Your task to perform on an android device: What's the weather going to be this weekend? Image 0: 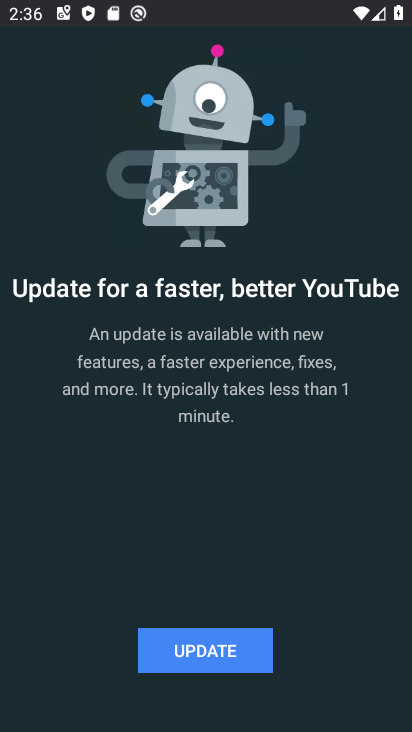
Step 0: press home button
Your task to perform on an android device: What's the weather going to be this weekend? Image 1: 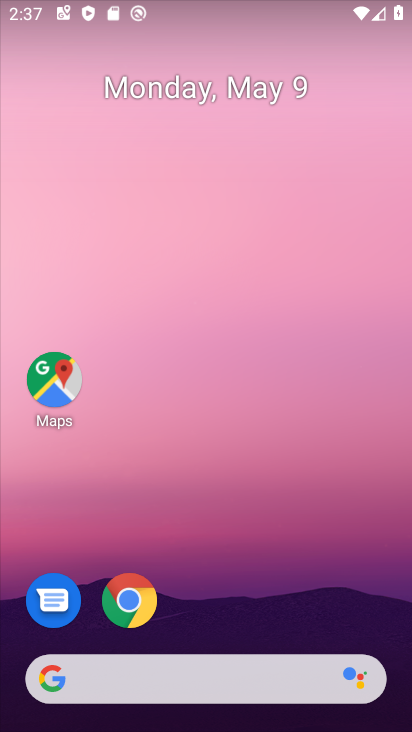
Step 1: click (150, 679)
Your task to perform on an android device: What's the weather going to be this weekend? Image 2: 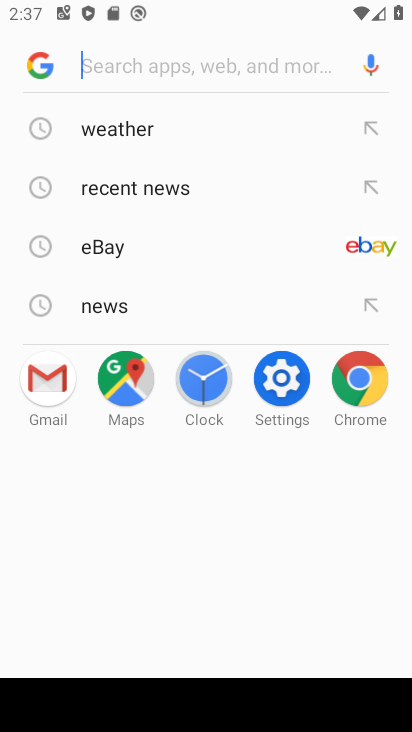
Step 2: click (119, 135)
Your task to perform on an android device: What's the weather going to be this weekend? Image 3: 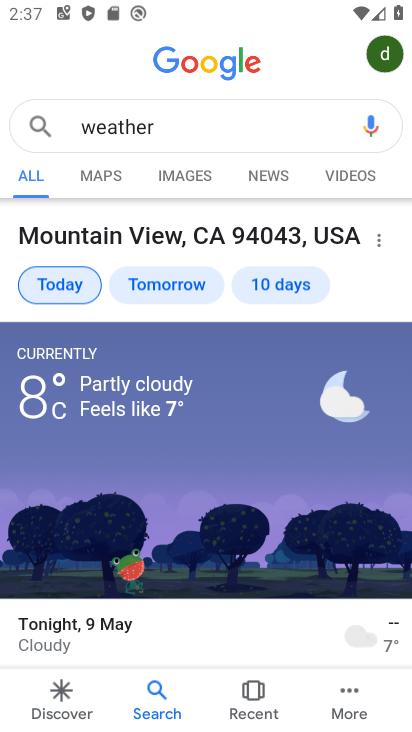
Step 3: click (266, 286)
Your task to perform on an android device: What's the weather going to be this weekend? Image 4: 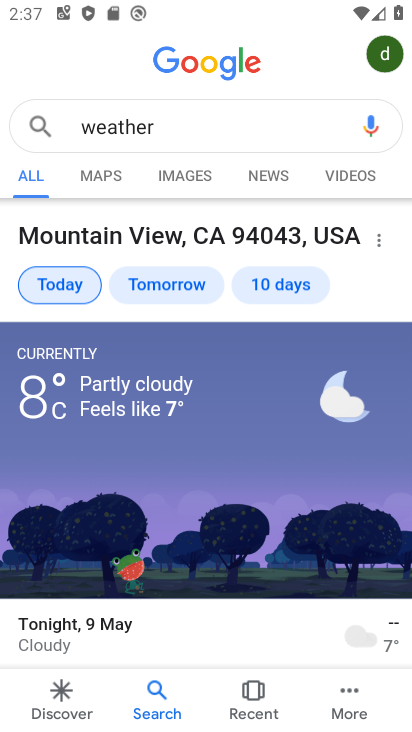
Step 4: click (266, 286)
Your task to perform on an android device: What's the weather going to be this weekend? Image 5: 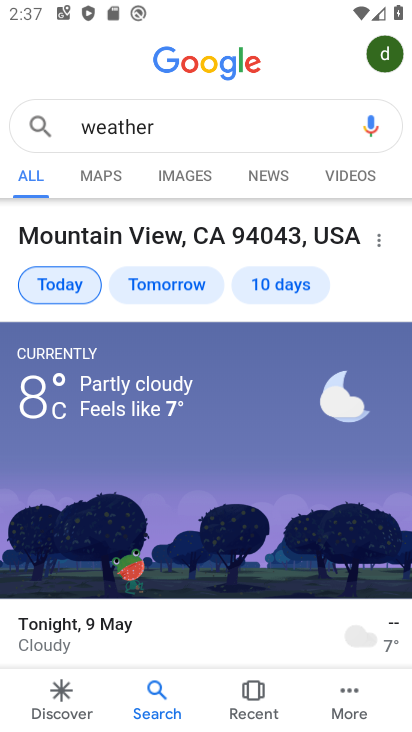
Step 5: click (266, 286)
Your task to perform on an android device: What's the weather going to be this weekend? Image 6: 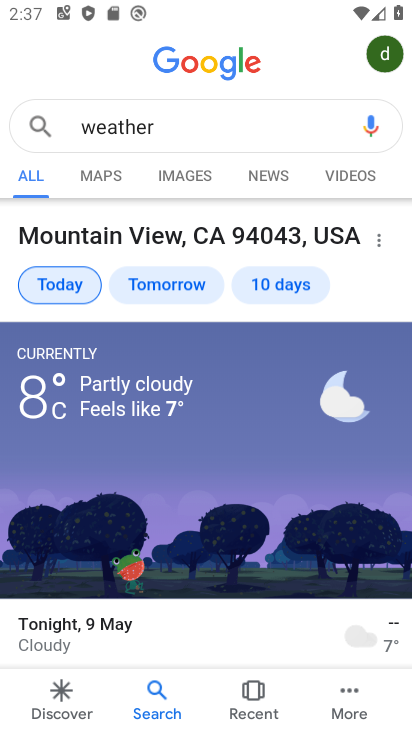
Step 6: click (292, 282)
Your task to perform on an android device: What's the weather going to be this weekend? Image 7: 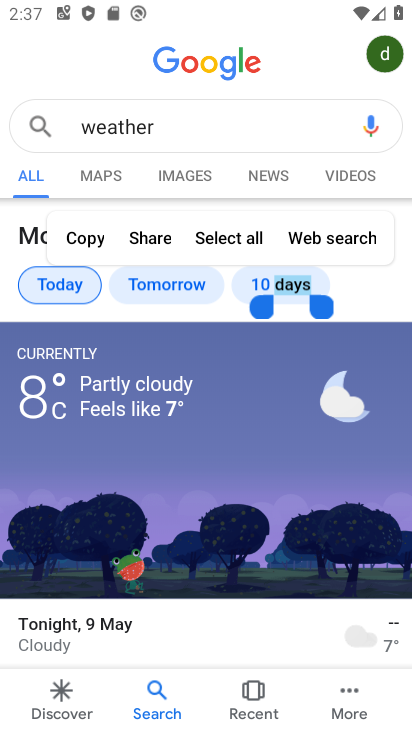
Step 7: click (239, 279)
Your task to perform on an android device: What's the weather going to be this weekend? Image 8: 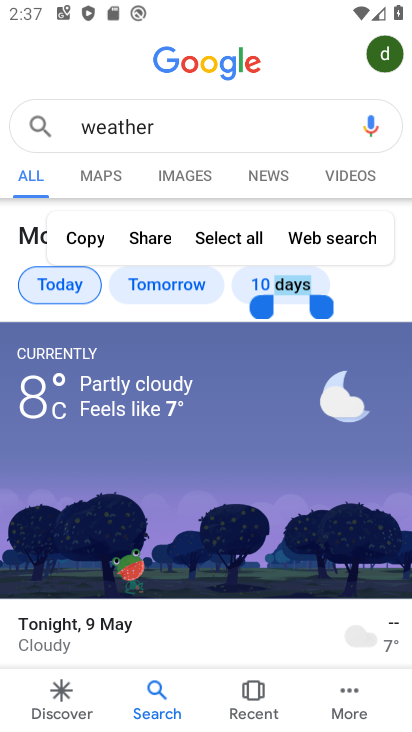
Step 8: click (127, 285)
Your task to perform on an android device: What's the weather going to be this weekend? Image 9: 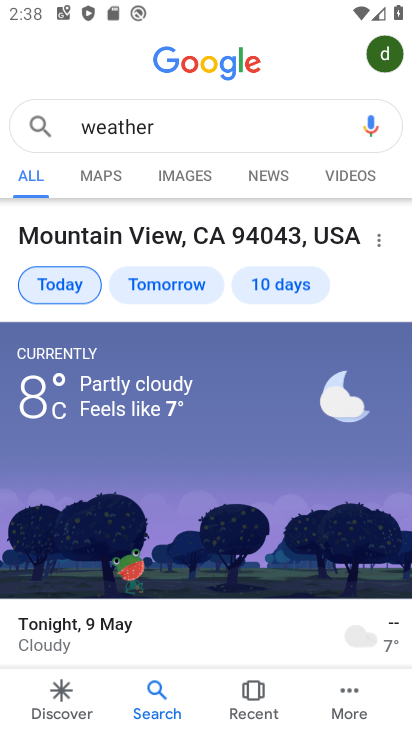
Step 9: click (263, 281)
Your task to perform on an android device: What's the weather going to be this weekend? Image 10: 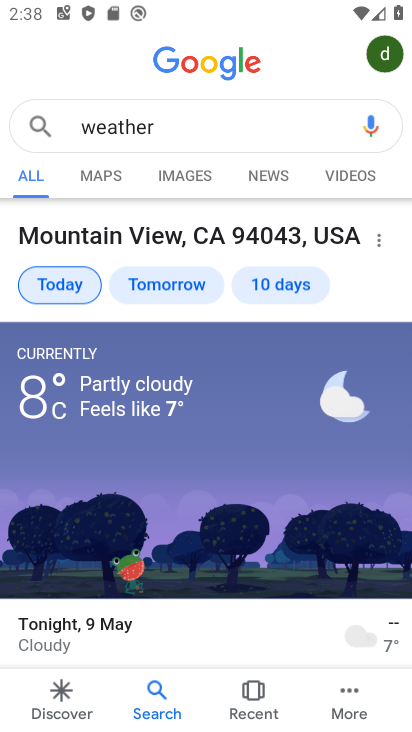
Step 10: task complete